Your task to perform on an android device: refresh tabs in the chrome app Image 0: 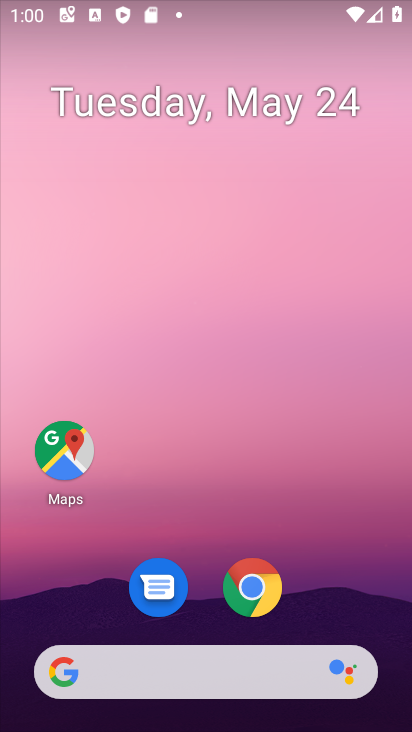
Step 0: click (228, 599)
Your task to perform on an android device: refresh tabs in the chrome app Image 1: 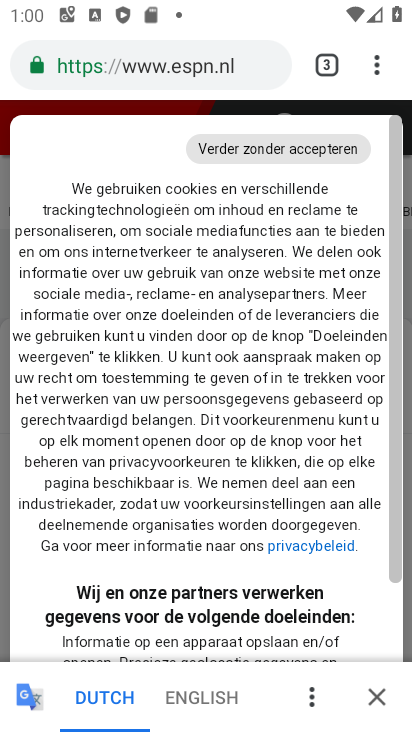
Step 1: click (380, 55)
Your task to perform on an android device: refresh tabs in the chrome app Image 2: 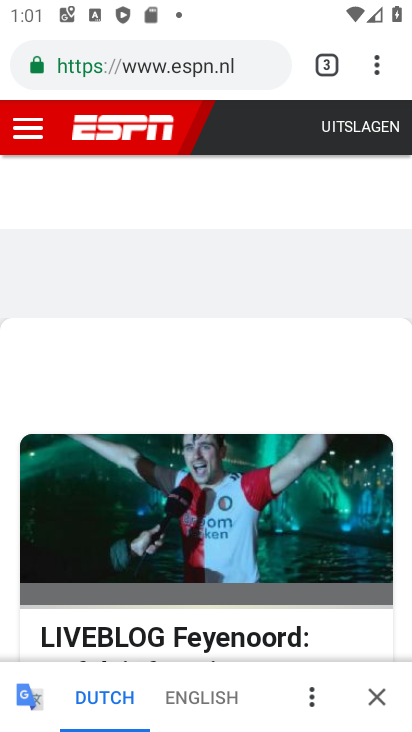
Step 2: click (376, 59)
Your task to perform on an android device: refresh tabs in the chrome app Image 3: 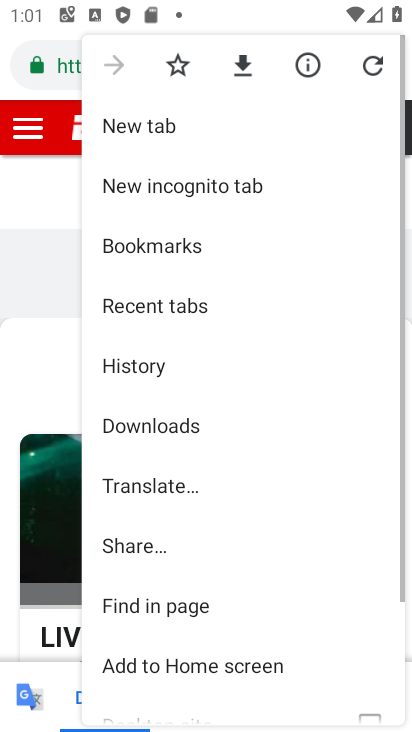
Step 3: click (376, 59)
Your task to perform on an android device: refresh tabs in the chrome app Image 4: 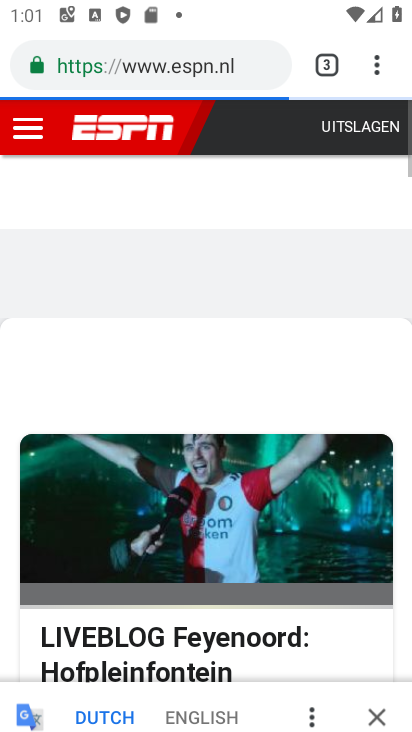
Step 4: task complete